Your task to perform on an android device: Add "razer huntsman" to the cart on ebay.com Image 0: 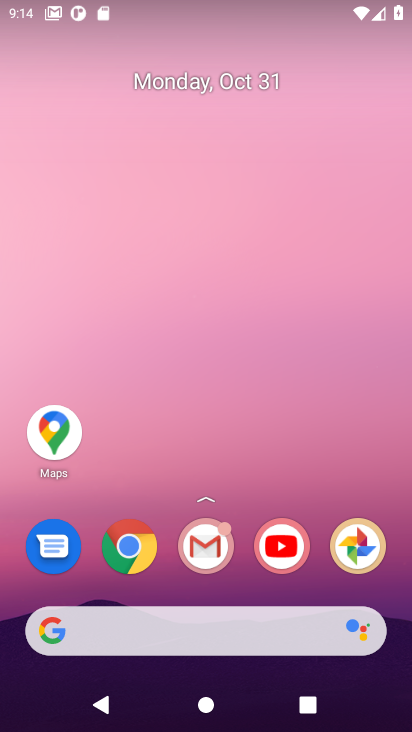
Step 0: drag from (280, 532) to (214, 49)
Your task to perform on an android device: Add "razer huntsman" to the cart on ebay.com Image 1: 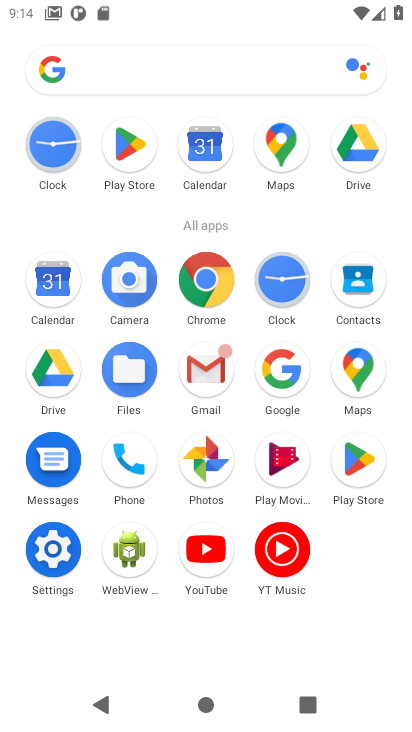
Step 1: click (209, 295)
Your task to perform on an android device: Add "razer huntsman" to the cart on ebay.com Image 2: 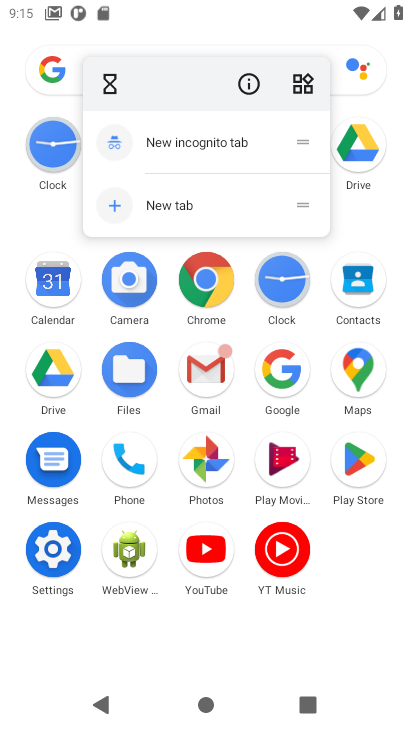
Step 2: click (196, 300)
Your task to perform on an android device: Add "razer huntsman" to the cart on ebay.com Image 3: 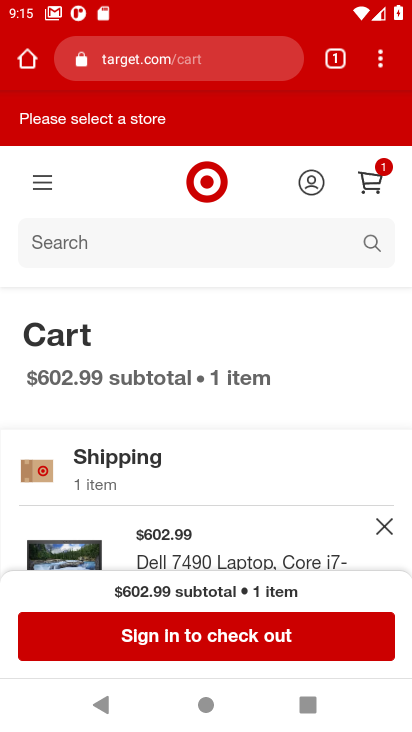
Step 3: click (113, 66)
Your task to perform on an android device: Add "razer huntsman" to the cart on ebay.com Image 4: 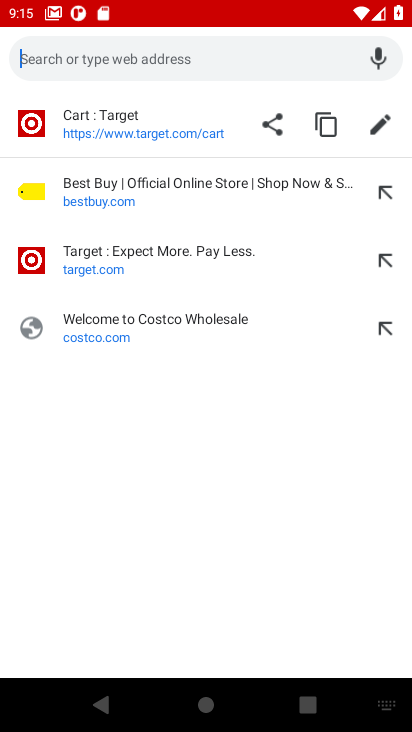
Step 4: type "ebay.com"
Your task to perform on an android device: Add "razer huntsman" to the cart on ebay.com Image 5: 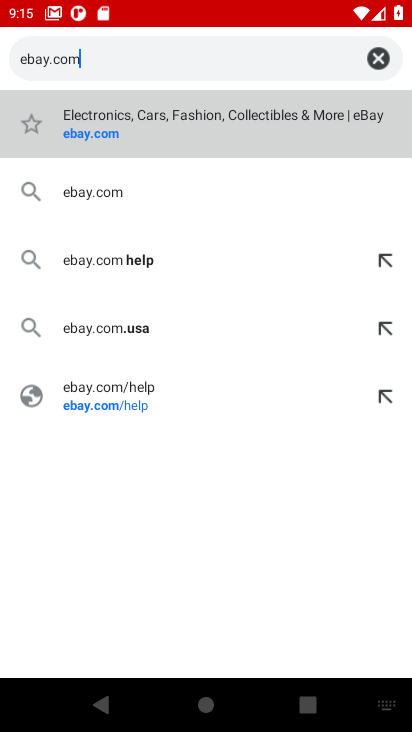
Step 5: press enter
Your task to perform on an android device: Add "razer huntsman" to the cart on ebay.com Image 6: 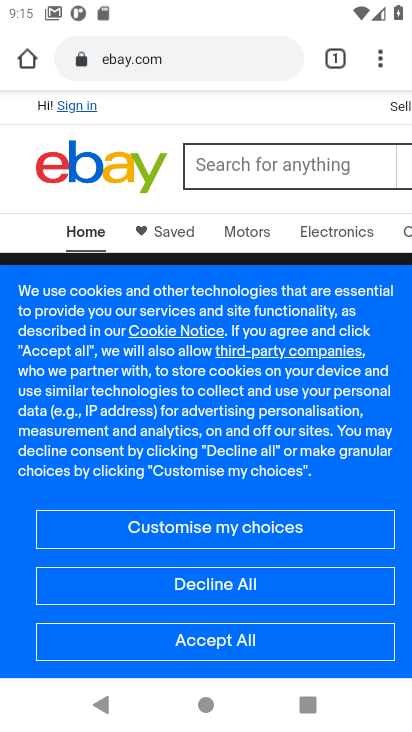
Step 6: click (213, 149)
Your task to perform on an android device: Add "razer huntsman" to the cart on ebay.com Image 7: 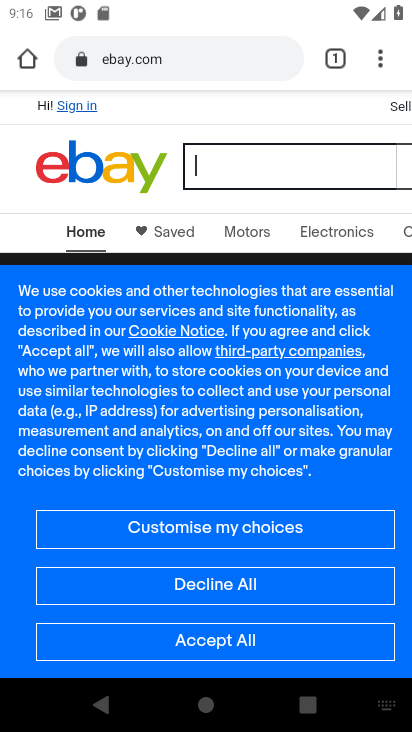
Step 7: type "razer huntsman"
Your task to perform on an android device: Add "razer huntsman" to the cart on ebay.com Image 8: 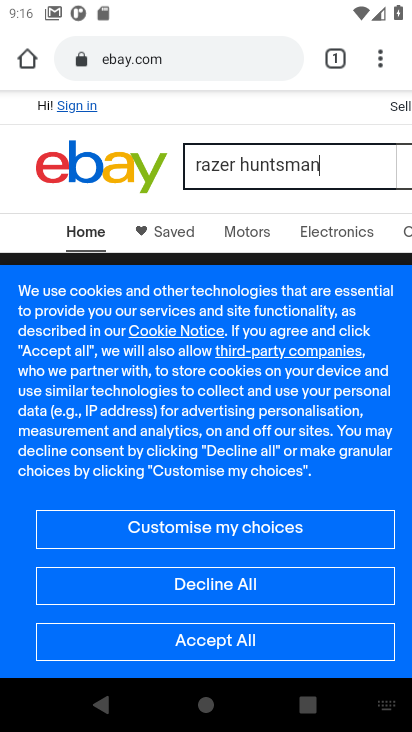
Step 8: press enter
Your task to perform on an android device: Add "razer huntsman" to the cart on ebay.com Image 9: 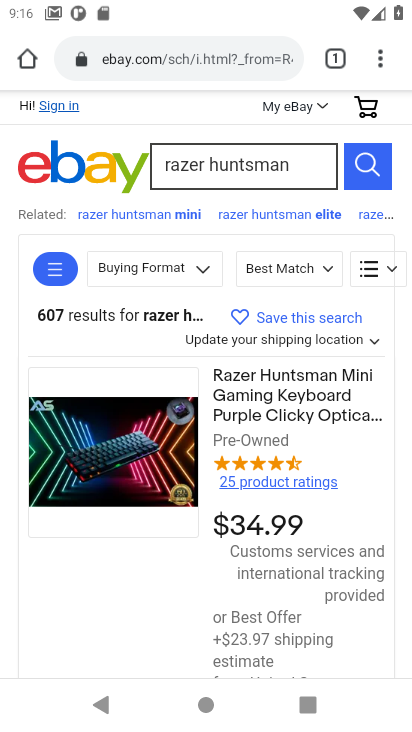
Step 9: drag from (226, 522) to (214, 327)
Your task to perform on an android device: Add "razer huntsman" to the cart on ebay.com Image 10: 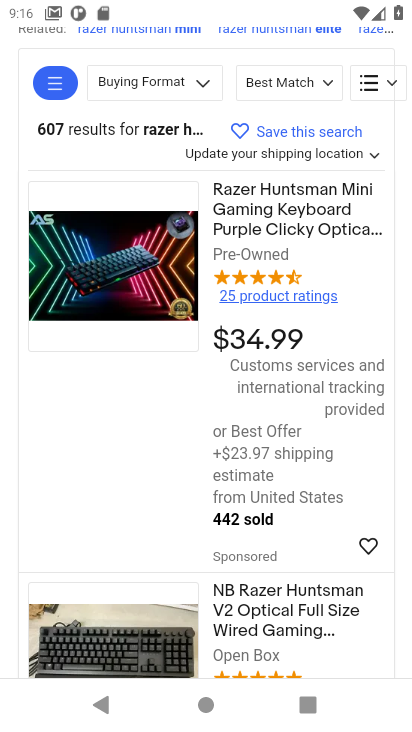
Step 10: drag from (274, 427) to (271, 340)
Your task to perform on an android device: Add "razer huntsman" to the cart on ebay.com Image 11: 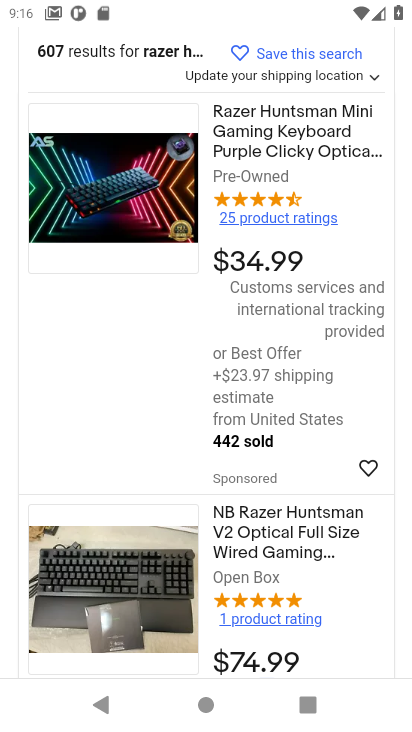
Step 11: click (156, 210)
Your task to perform on an android device: Add "razer huntsman" to the cart on ebay.com Image 12: 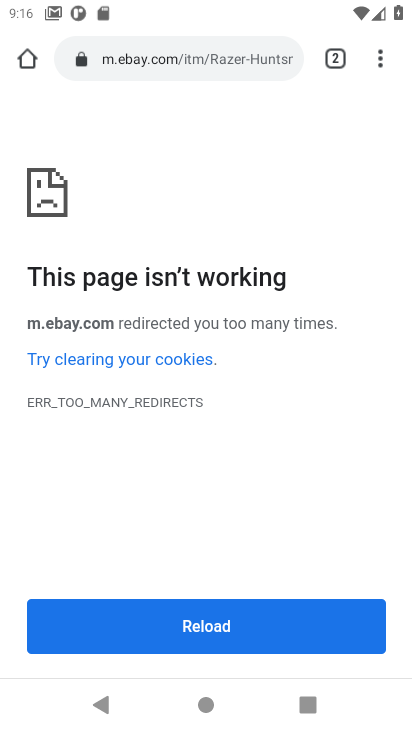
Step 12: click (179, 628)
Your task to perform on an android device: Add "razer huntsman" to the cart on ebay.com Image 13: 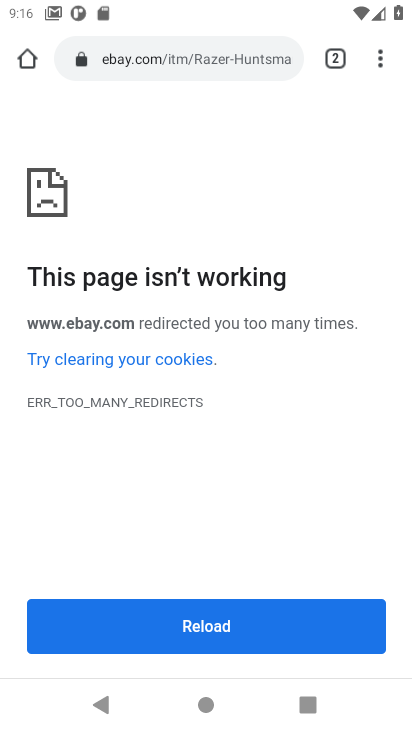
Step 13: click (182, 649)
Your task to perform on an android device: Add "razer huntsman" to the cart on ebay.com Image 14: 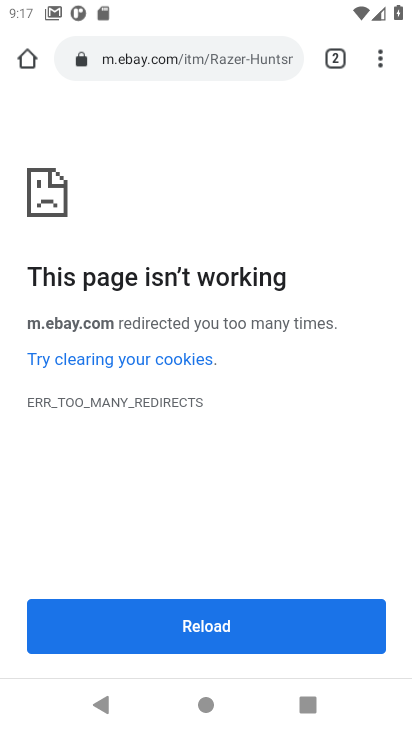
Step 14: click (188, 619)
Your task to perform on an android device: Add "razer huntsman" to the cart on ebay.com Image 15: 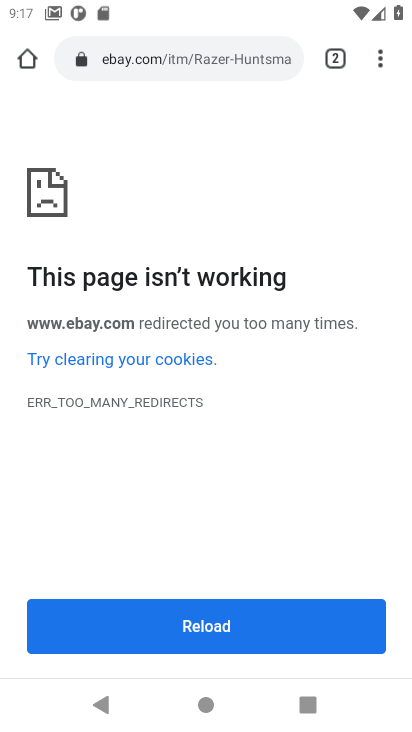
Step 15: press back button
Your task to perform on an android device: Add "razer huntsman" to the cart on ebay.com Image 16: 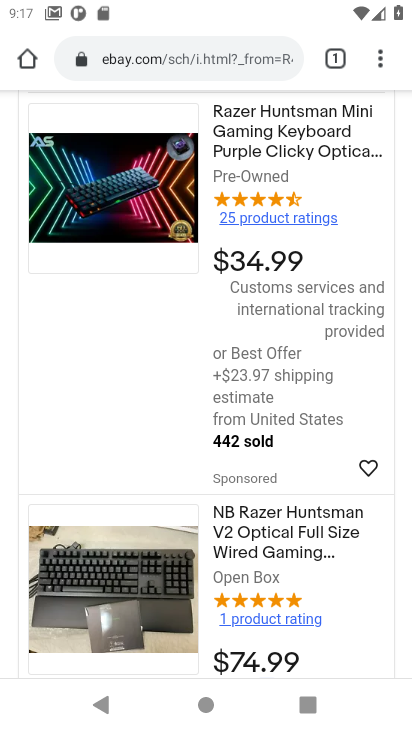
Step 16: click (116, 177)
Your task to perform on an android device: Add "razer huntsman" to the cart on ebay.com Image 17: 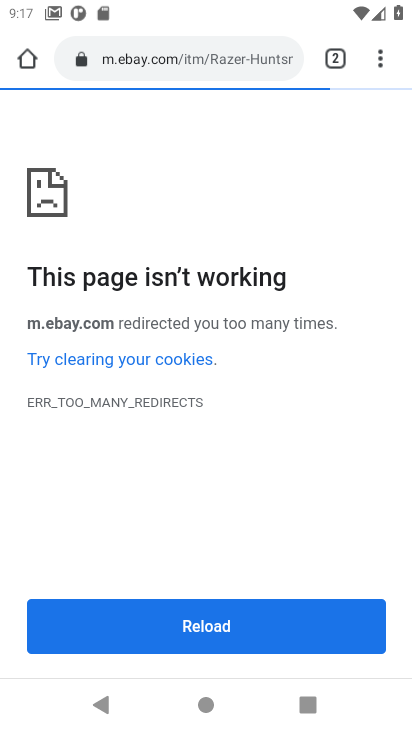
Step 17: press back button
Your task to perform on an android device: Add "razer huntsman" to the cart on ebay.com Image 18: 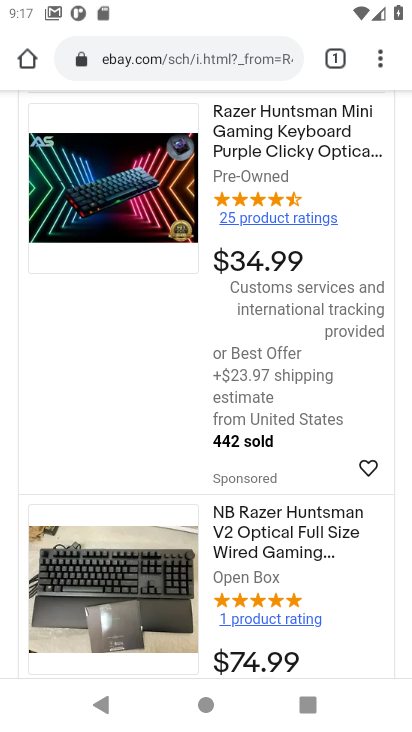
Step 18: drag from (307, 248) to (369, 478)
Your task to perform on an android device: Add "razer huntsman" to the cart on ebay.com Image 19: 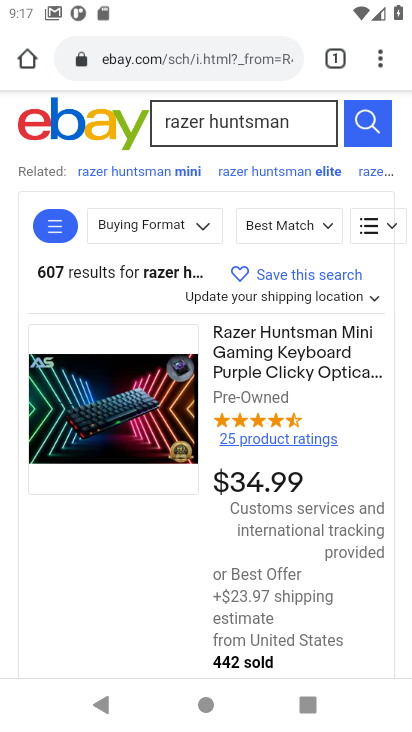
Step 19: click (297, 343)
Your task to perform on an android device: Add "razer huntsman" to the cart on ebay.com Image 20: 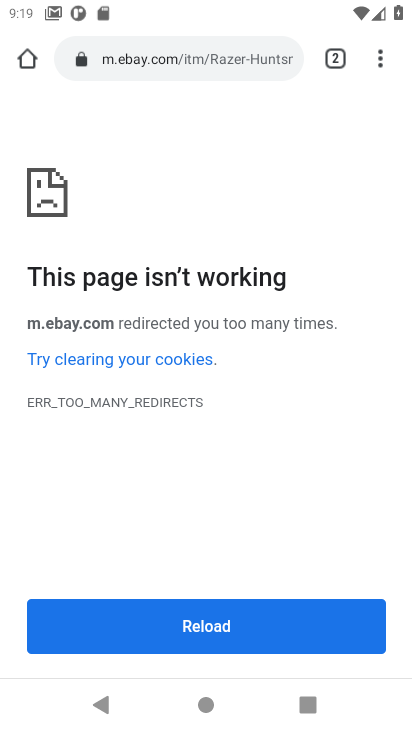
Step 20: click (218, 640)
Your task to perform on an android device: Add "razer huntsman" to the cart on ebay.com Image 21: 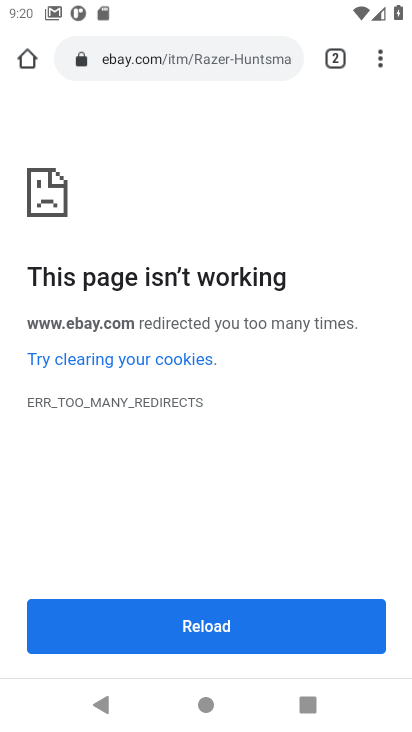
Step 21: click (171, 59)
Your task to perform on an android device: Add "razer huntsman" to the cart on ebay.com Image 22: 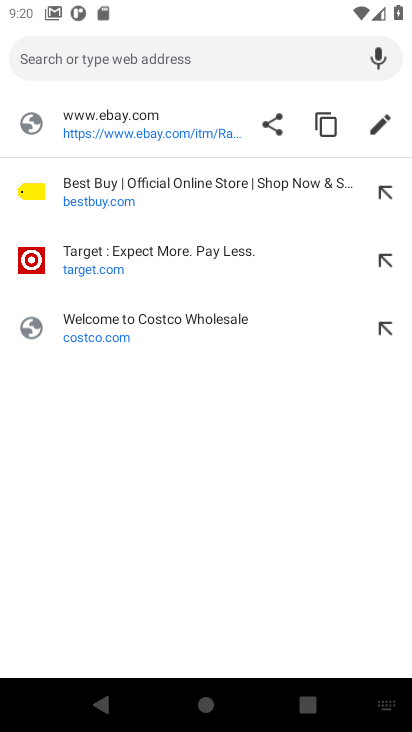
Step 22: type "ebay.com"
Your task to perform on an android device: Add "razer huntsman" to the cart on ebay.com Image 23: 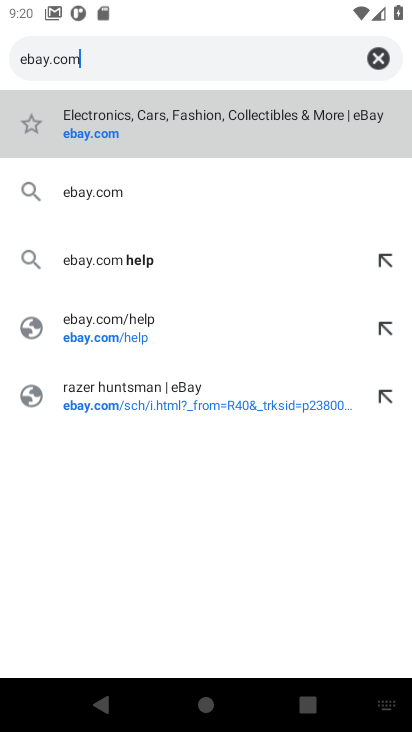
Step 23: press enter
Your task to perform on an android device: Add "razer huntsman" to the cart on ebay.com Image 24: 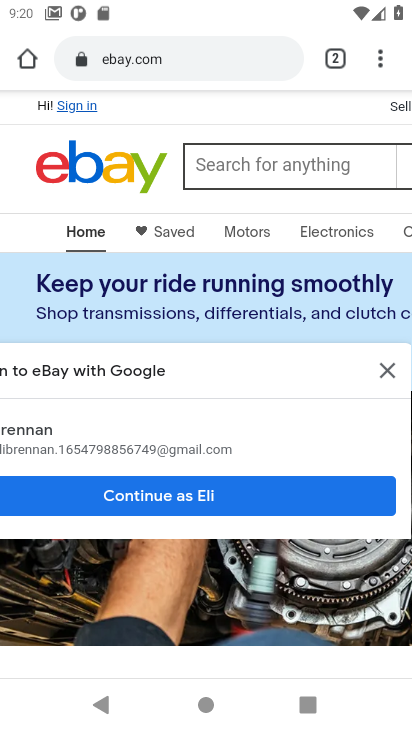
Step 24: click (279, 165)
Your task to perform on an android device: Add "razer huntsman" to the cart on ebay.com Image 25: 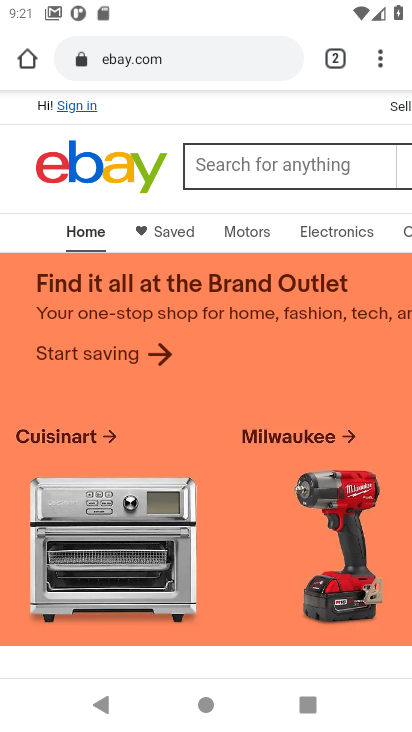
Step 25: type "razer huntsman""
Your task to perform on an android device: Add "razer huntsman" to the cart on ebay.com Image 26: 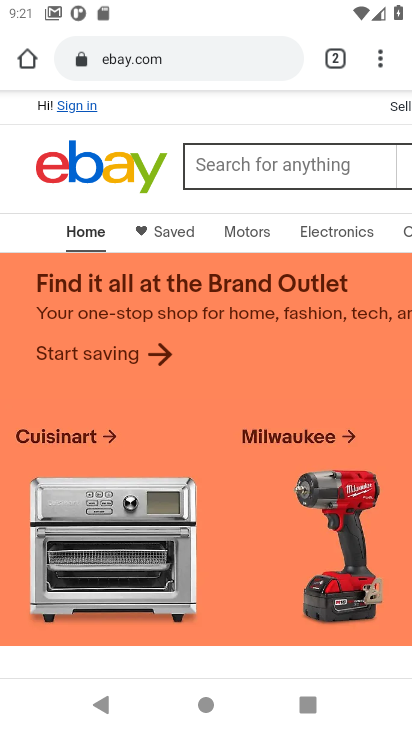
Step 26: press enter
Your task to perform on an android device: Add "razer huntsman" to the cart on ebay.com Image 27: 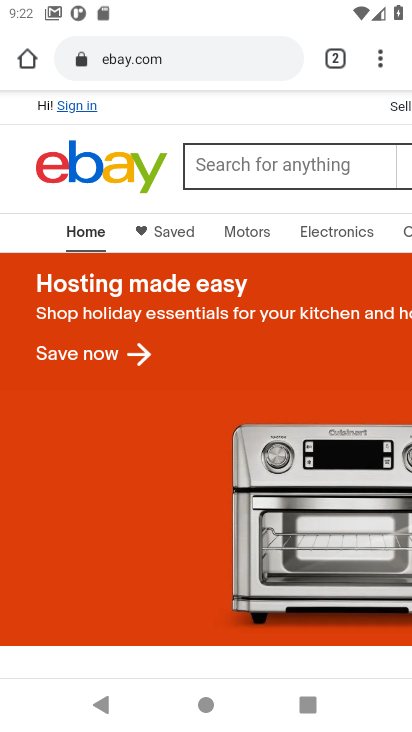
Step 27: drag from (227, 515) to (333, 198)
Your task to perform on an android device: Add "razer huntsman" to the cart on ebay.com Image 28: 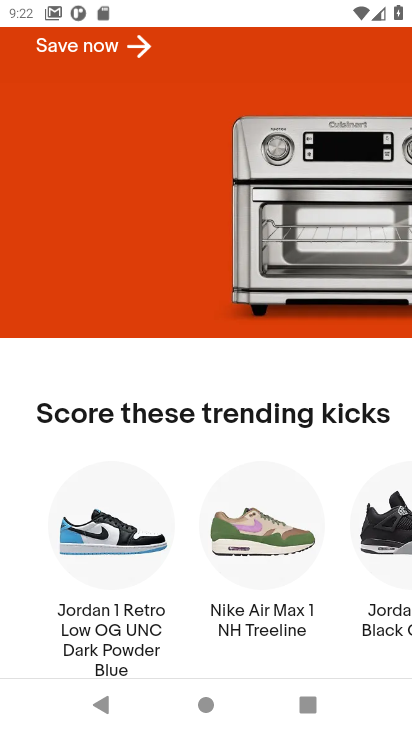
Step 28: drag from (361, 395) to (406, 184)
Your task to perform on an android device: Add "razer huntsman" to the cart on ebay.com Image 29: 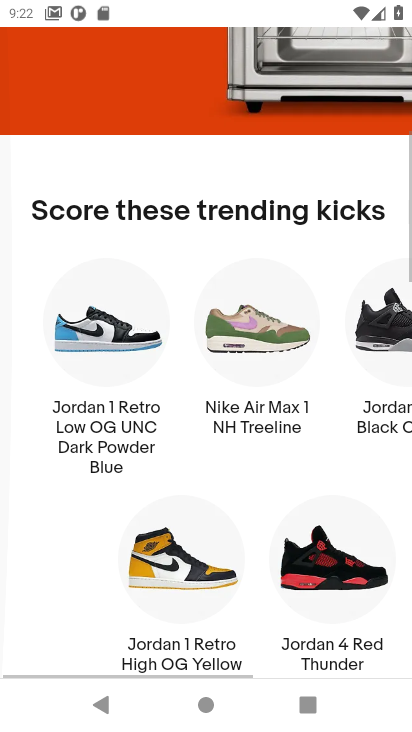
Step 29: drag from (311, 352) to (308, 584)
Your task to perform on an android device: Add "razer huntsman" to the cart on ebay.com Image 30: 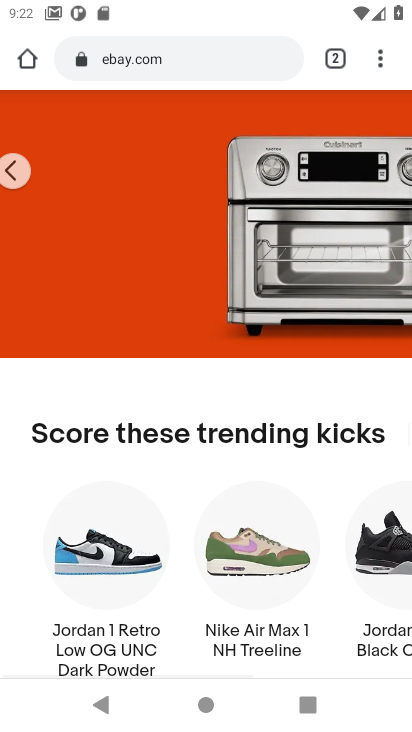
Step 30: drag from (155, 239) to (190, 553)
Your task to perform on an android device: Add "razer huntsman" to the cart on ebay.com Image 31: 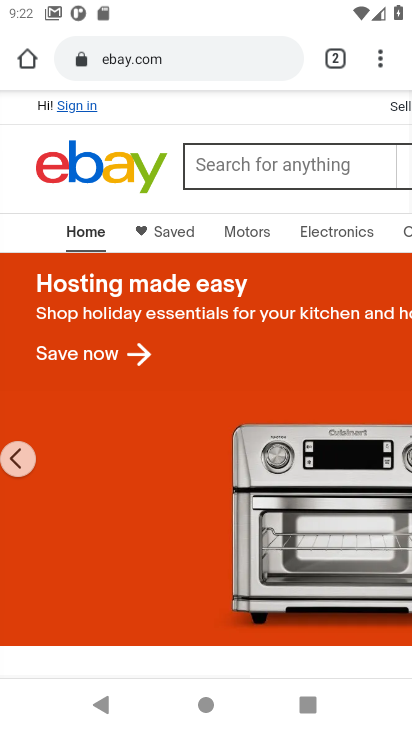
Step 31: drag from (200, 363) to (249, 689)
Your task to perform on an android device: Add "razer huntsman" to the cart on ebay.com Image 32: 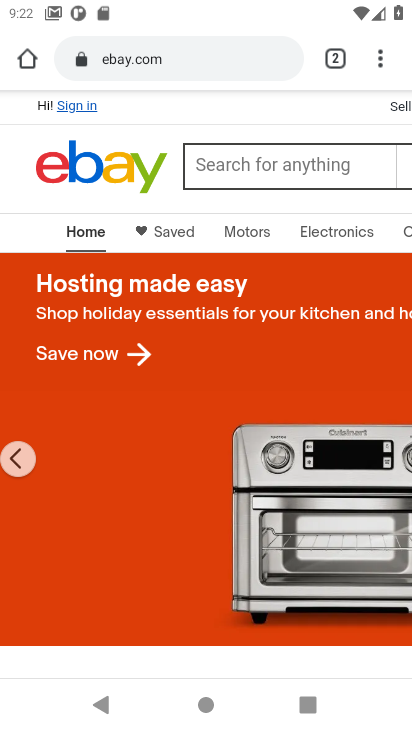
Step 32: click (221, 165)
Your task to perform on an android device: Add "razer huntsman" to the cart on ebay.com Image 33: 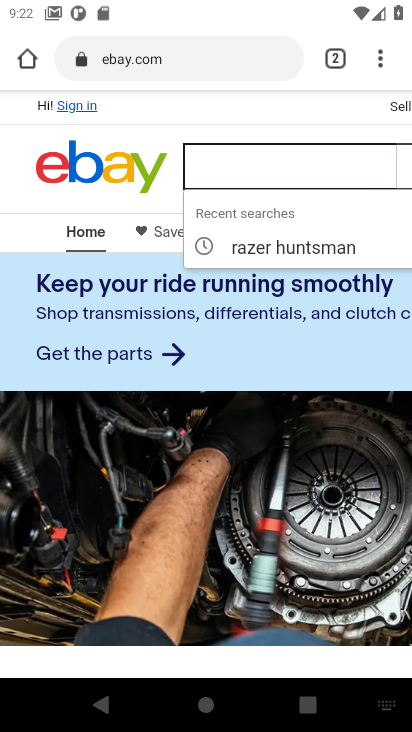
Step 33: click (308, 247)
Your task to perform on an android device: Add "razer huntsman" to the cart on ebay.com Image 34: 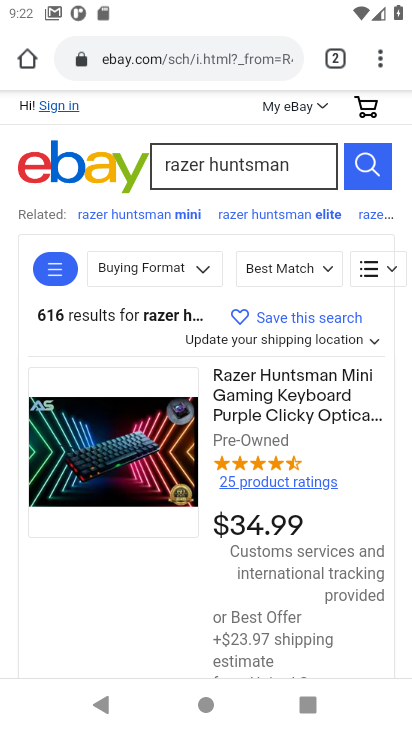
Step 34: drag from (249, 494) to (243, 336)
Your task to perform on an android device: Add "razer huntsman" to the cart on ebay.com Image 35: 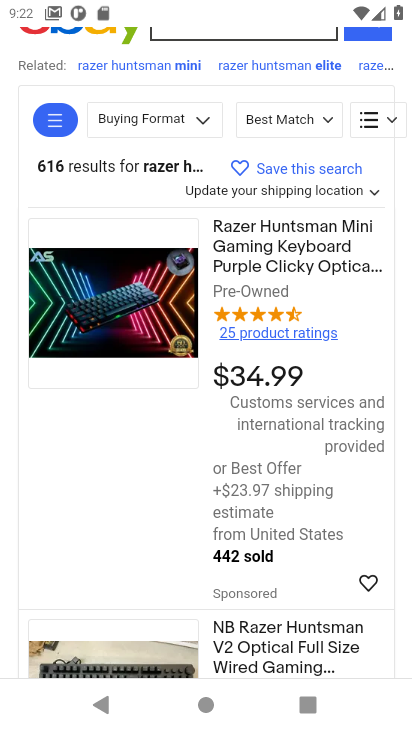
Step 35: click (281, 293)
Your task to perform on an android device: Add "razer huntsman" to the cart on ebay.com Image 36: 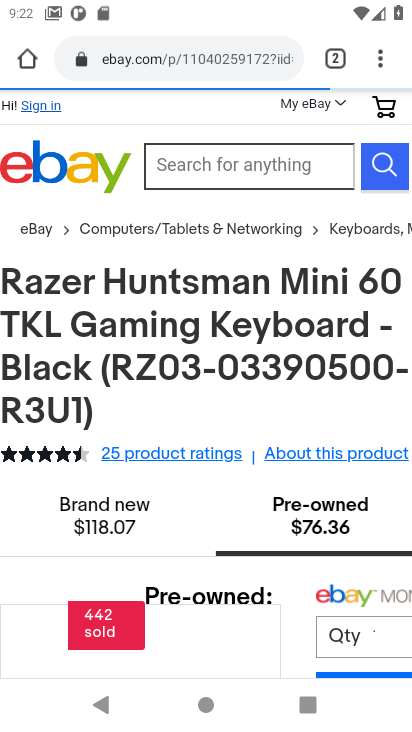
Step 36: drag from (260, 572) to (261, 277)
Your task to perform on an android device: Add "razer huntsman" to the cart on ebay.com Image 37: 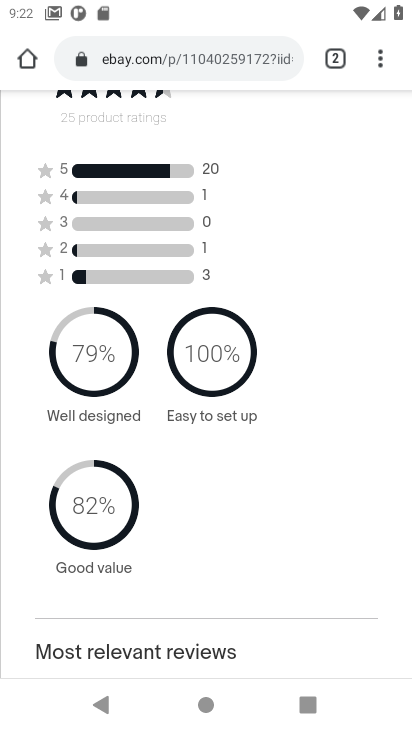
Step 37: drag from (226, 323) to (274, 527)
Your task to perform on an android device: Add "razer huntsman" to the cart on ebay.com Image 38: 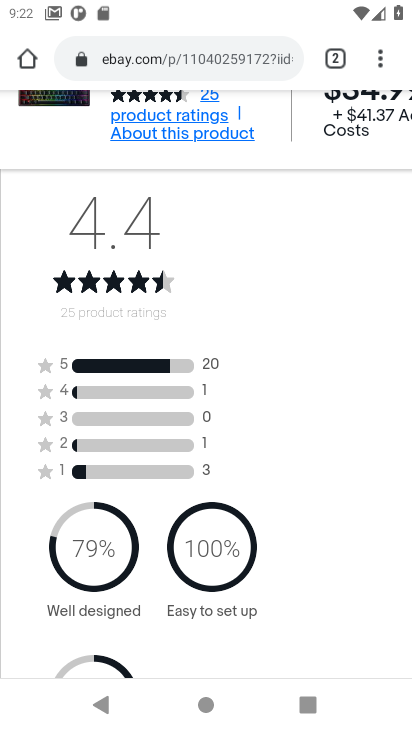
Step 38: drag from (283, 295) to (349, 528)
Your task to perform on an android device: Add "razer huntsman" to the cart on ebay.com Image 39: 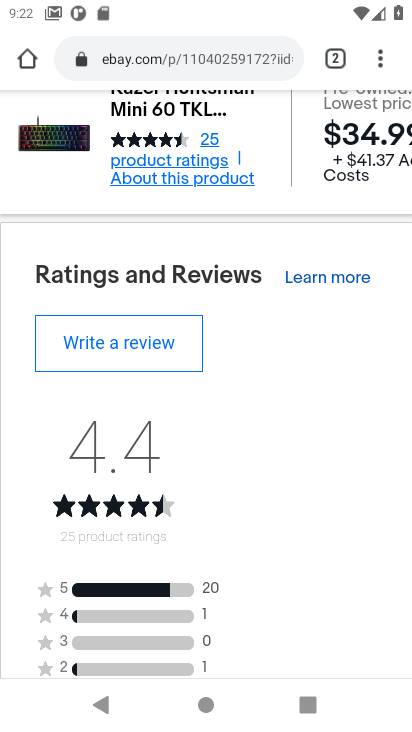
Step 39: drag from (286, 360) to (340, 617)
Your task to perform on an android device: Add "razer huntsman" to the cart on ebay.com Image 40: 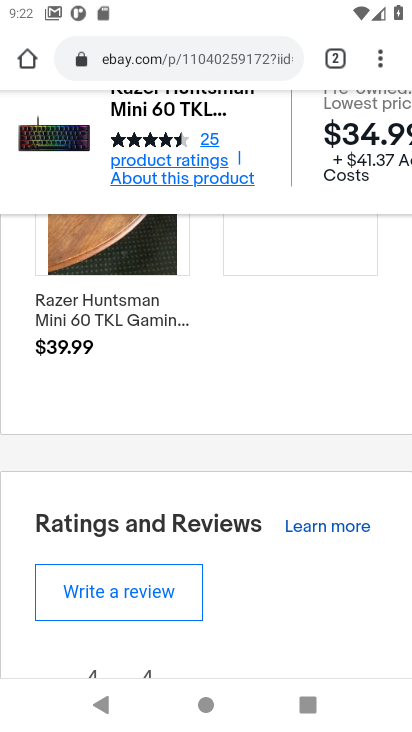
Step 40: drag from (286, 357) to (354, 659)
Your task to perform on an android device: Add "razer huntsman" to the cart on ebay.com Image 41: 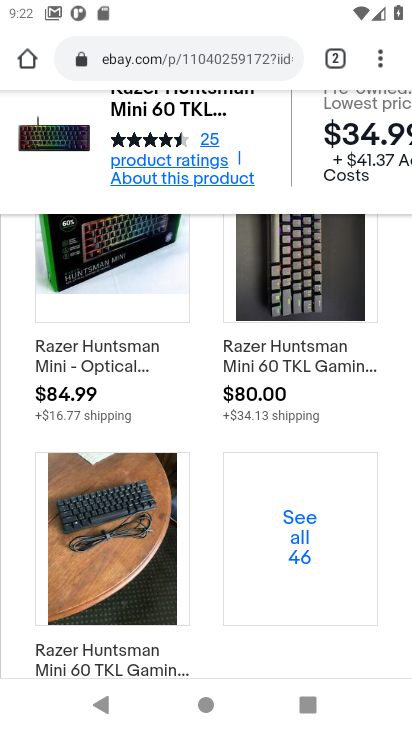
Step 41: drag from (311, 363) to (376, 620)
Your task to perform on an android device: Add "razer huntsman" to the cart on ebay.com Image 42: 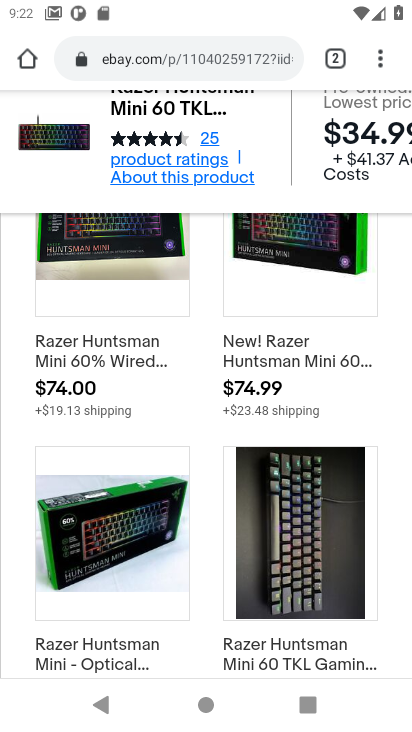
Step 42: drag from (292, 328) to (366, 595)
Your task to perform on an android device: Add "razer huntsman" to the cart on ebay.com Image 43: 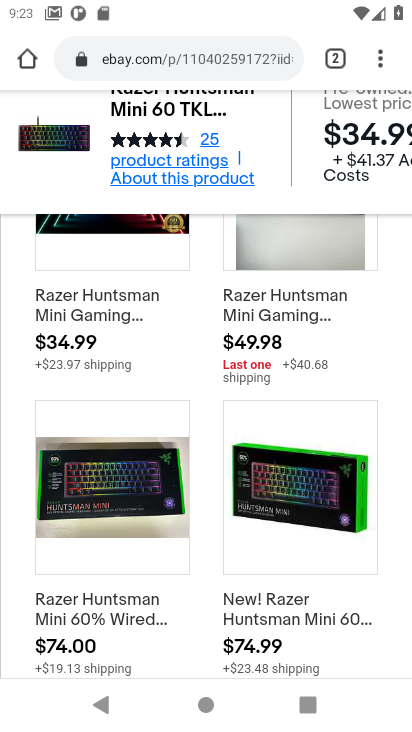
Step 43: drag from (278, 288) to (350, 583)
Your task to perform on an android device: Add "razer huntsman" to the cart on ebay.com Image 44: 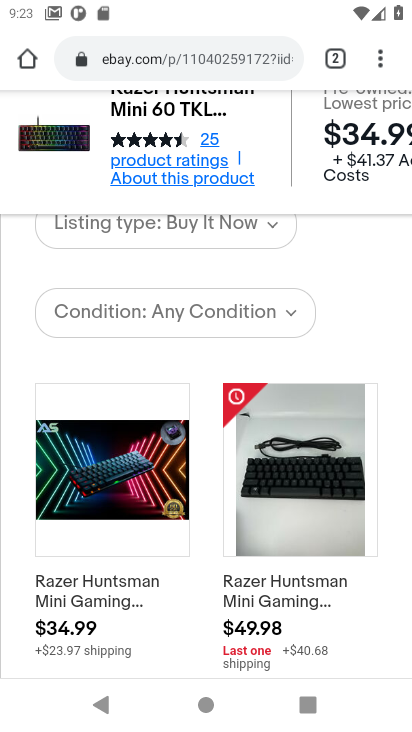
Step 44: drag from (267, 274) to (348, 599)
Your task to perform on an android device: Add "razer huntsman" to the cart on ebay.com Image 45: 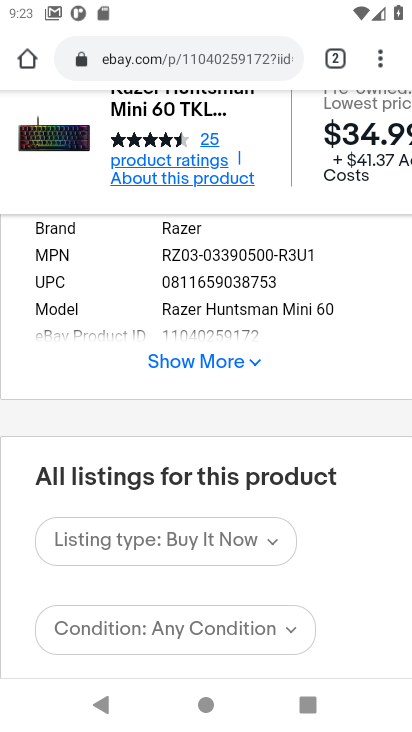
Step 45: drag from (310, 334) to (335, 657)
Your task to perform on an android device: Add "razer huntsman" to the cart on ebay.com Image 46: 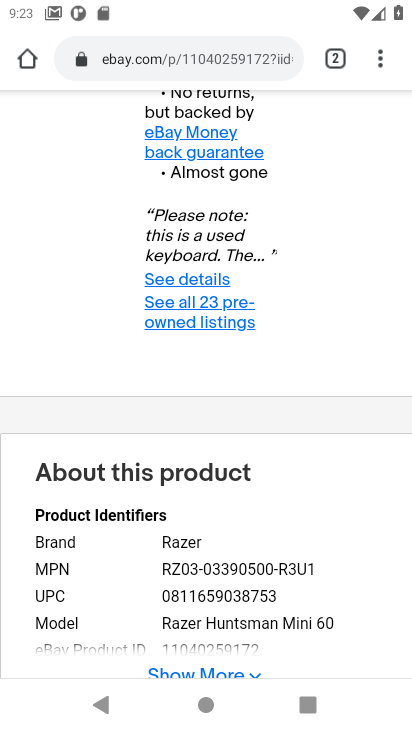
Step 46: drag from (238, 232) to (303, 570)
Your task to perform on an android device: Add "razer huntsman" to the cart on ebay.com Image 47: 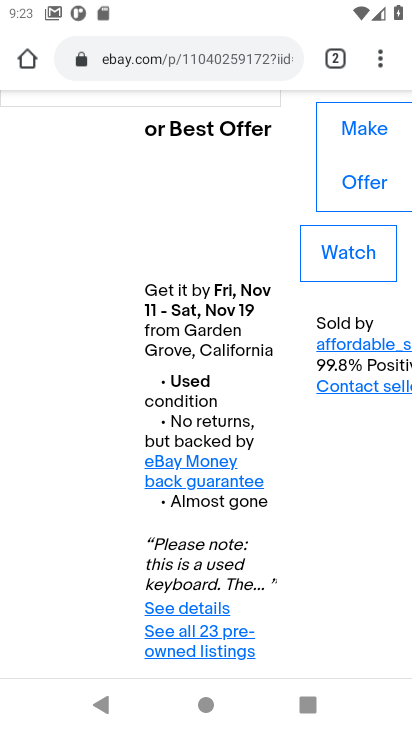
Step 47: drag from (185, 222) to (278, 607)
Your task to perform on an android device: Add "razer huntsman" to the cart on ebay.com Image 48: 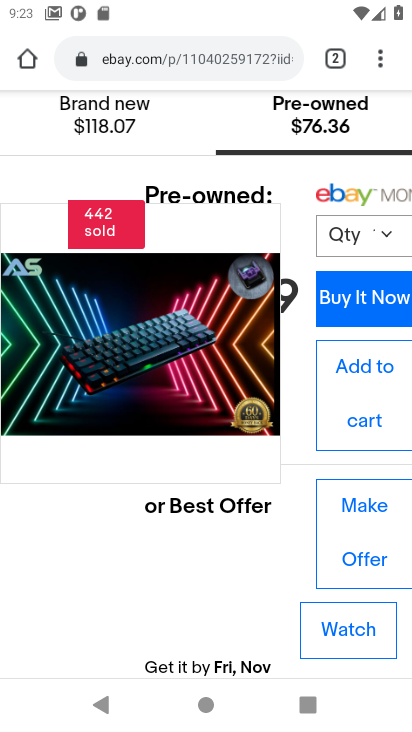
Step 48: drag from (204, 320) to (273, 688)
Your task to perform on an android device: Add "razer huntsman" to the cart on ebay.com Image 49: 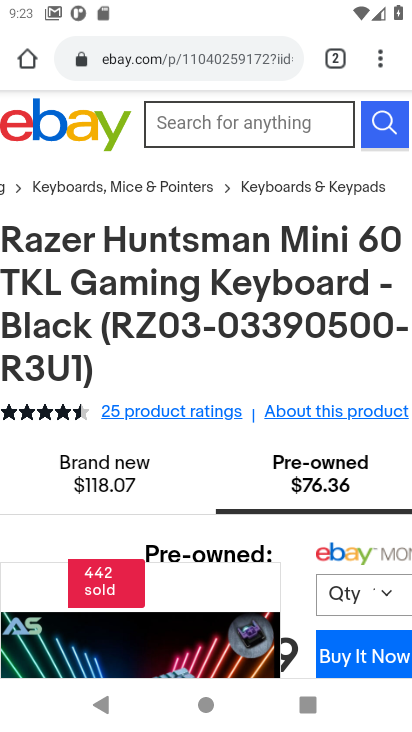
Step 49: drag from (263, 633) to (294, 419)
Your task to perform on an android device: Add "razer huntsman" to the cart on ebay.com Image 50: 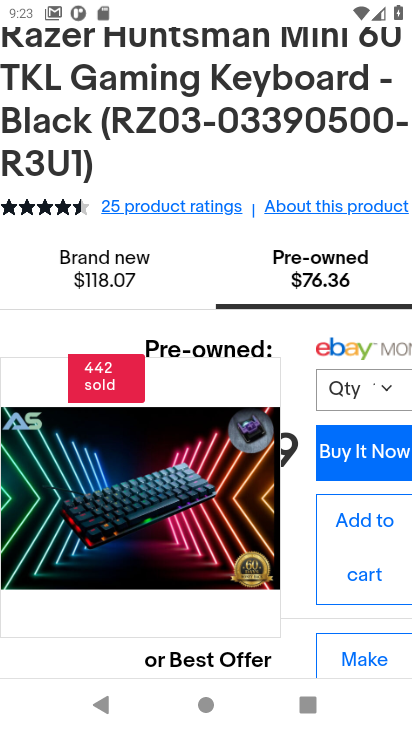
Step 50: click (377, 534)
Your task to perform on an android device: Add "razer huntsman" to the cart on ebay.com Image 51: 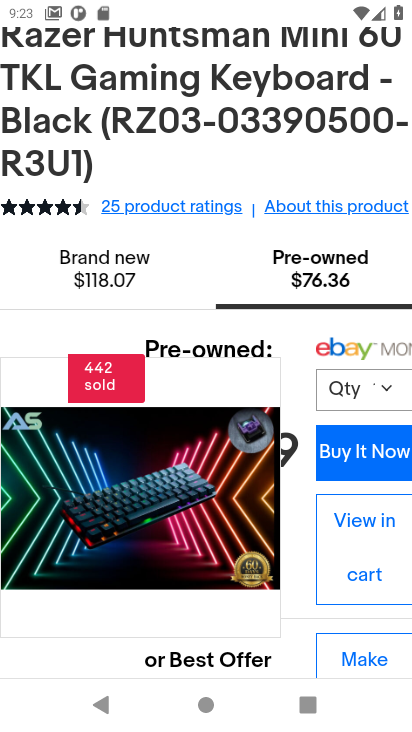
Step 51: click (382, 540)
Your task to perform on an android device: Add "razer huntsman" to the cart on ebay.com Image 52: 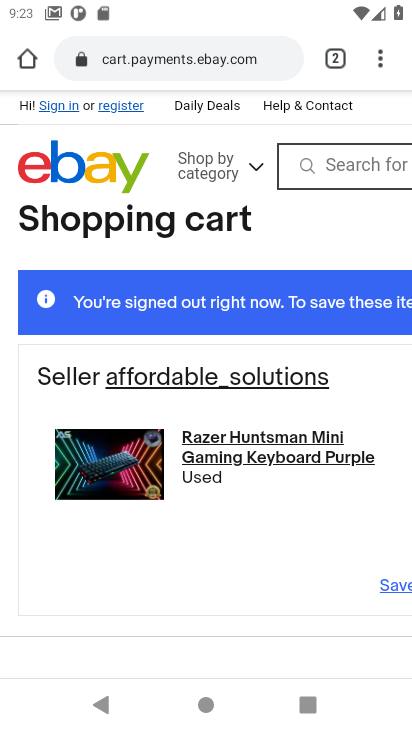
Step 52: task complete